Your task to perform on an android device: Show me popular games on the Play Store Image 0: 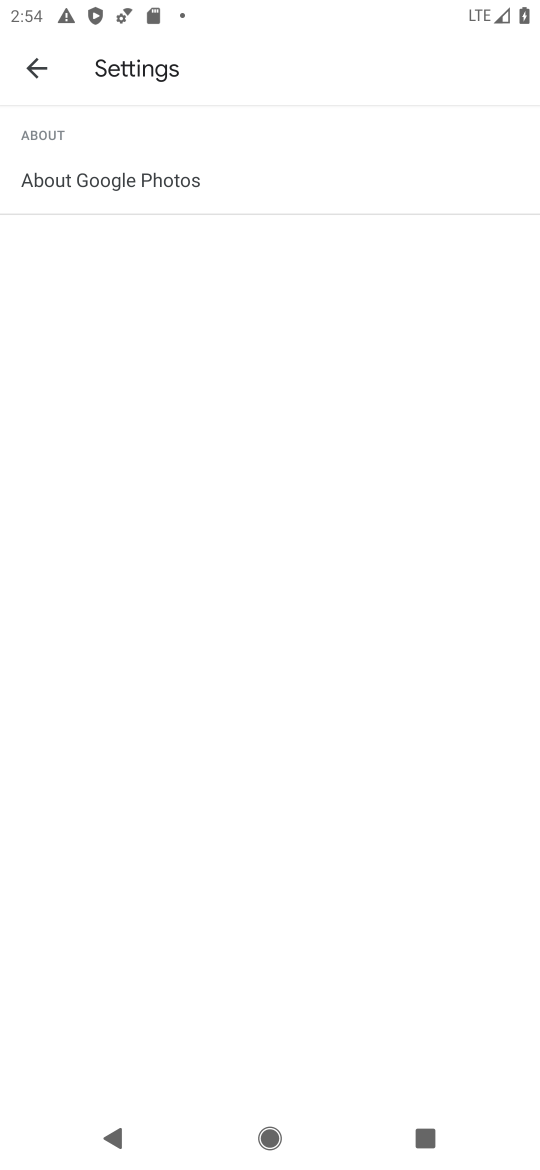
Step 0: press home button
Your task to perform on an android device: Show me popular games on the Play Store Image 1: 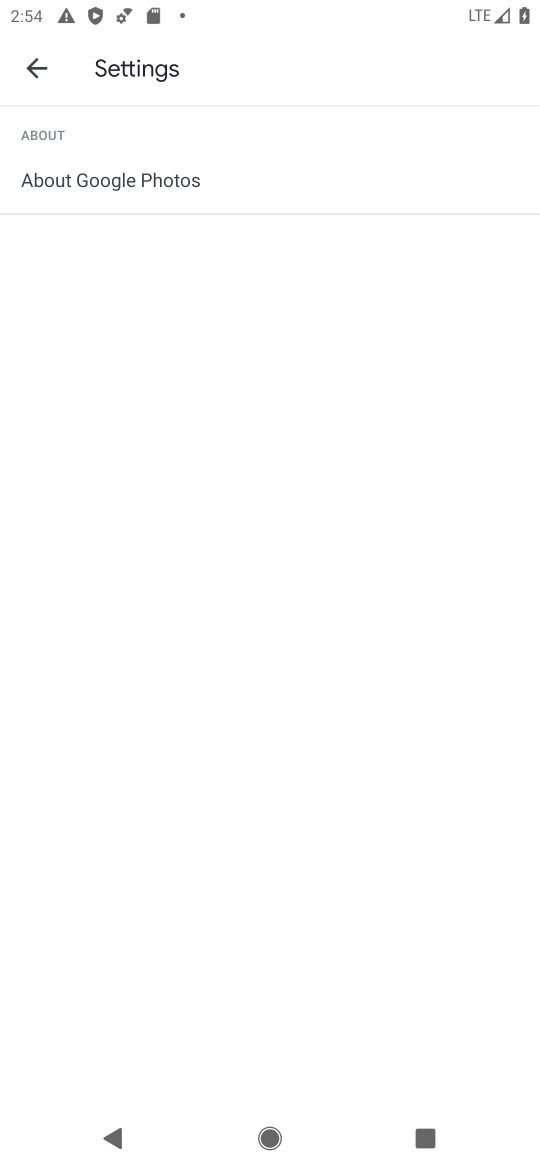
Step 1: press home button
Your task to perform on an android device: Show me popular games on the Play Store Image 2: 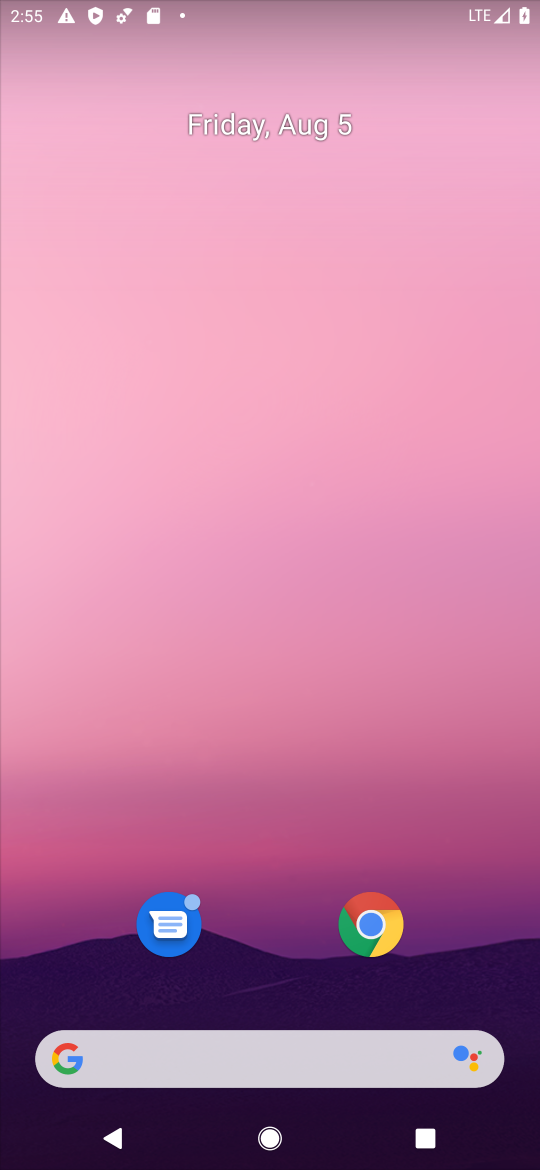
Step 2: drag from (275, 830) to (278, 206)
Your task to perform on an android device: Show me popular games on the Play Store Image 3: 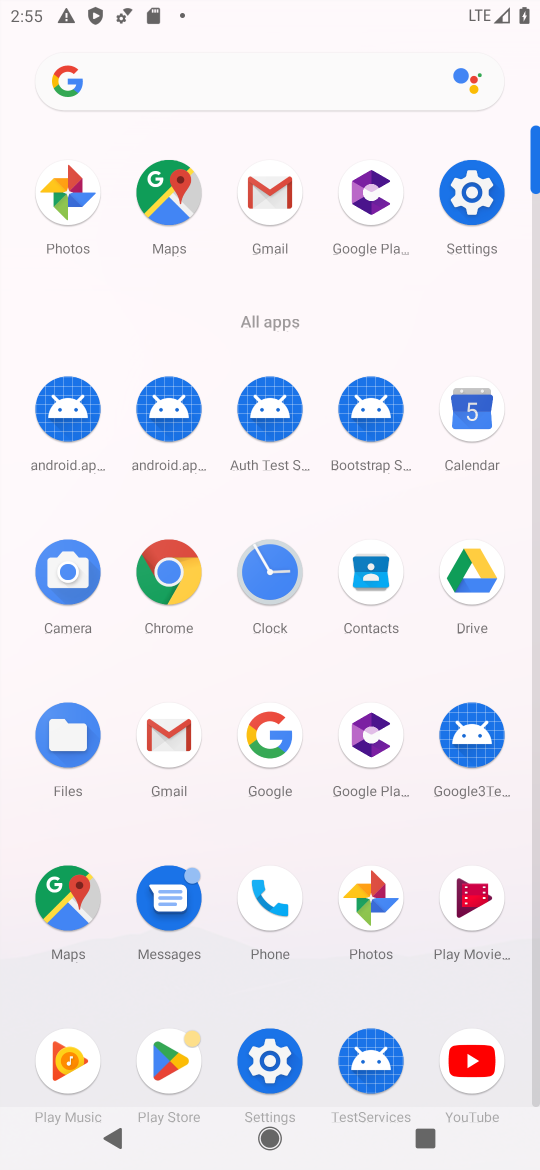
Step 3: click (173, 1054)
Your task to perform on an android device: Show me popular games on the Play Store Image 4: 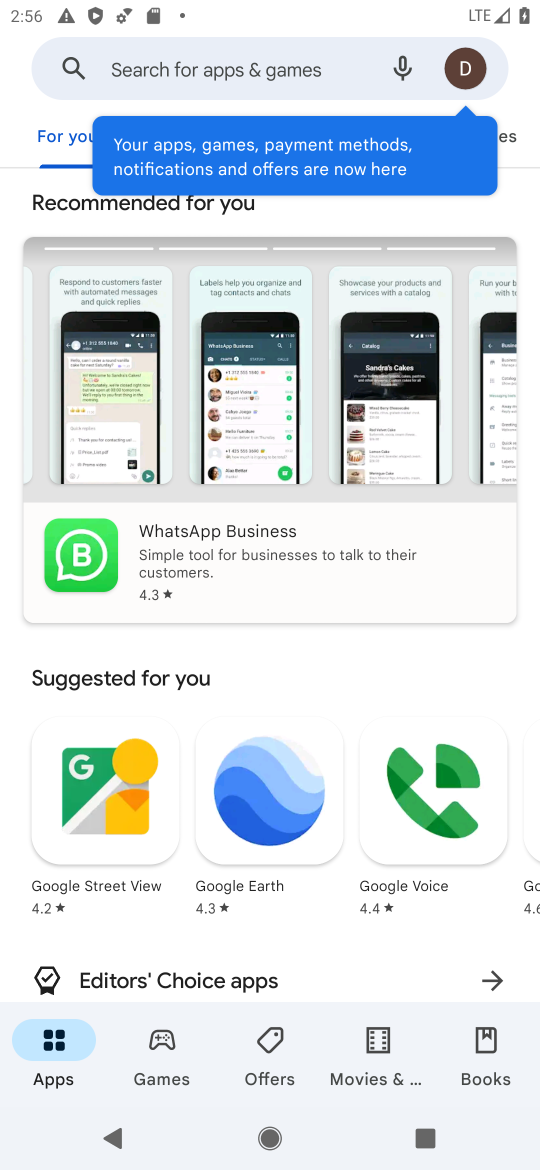
Step 4: click (157, 1035)
Your task to perform on an android device: Show me popular games on the Play Store Image 5: 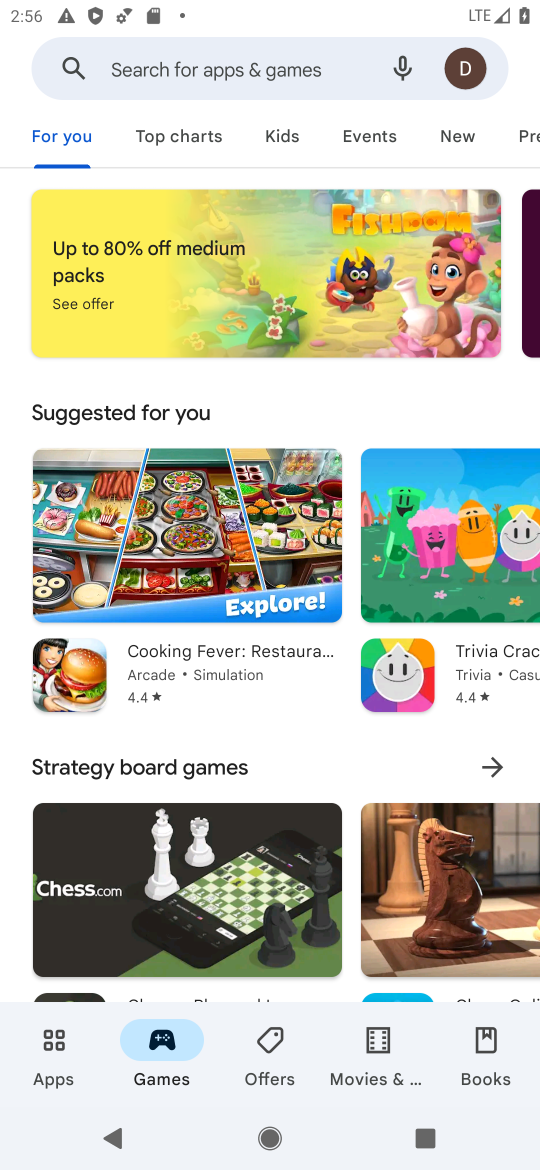
Step 5: task complete